Your task to perform on an android device: turn off javascript in the chrome app Image 0: 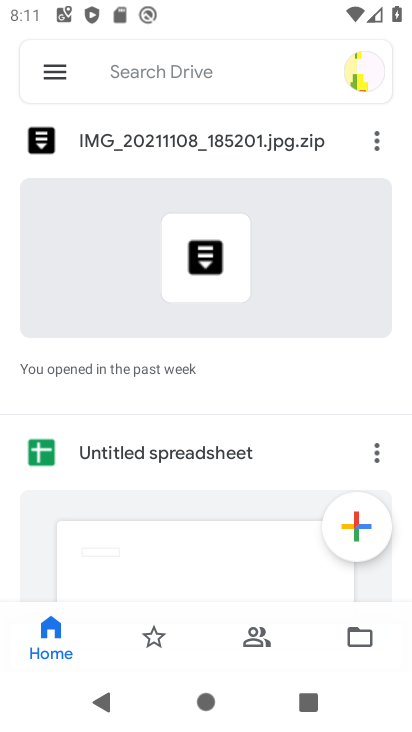
Step 0: press home button
Your task to perform on an android device: turn off javascript in the chrome app Image 1: 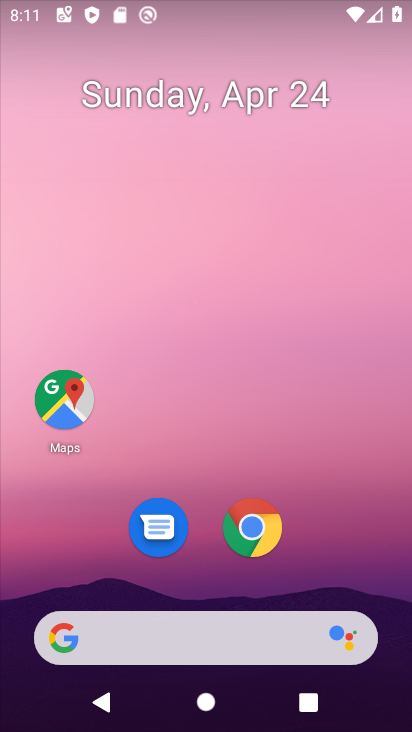
Step 1: drag from (373, 603) to (258, 42)
Your task to perform on an android device: turn off javascript in the chrome app Image 2: 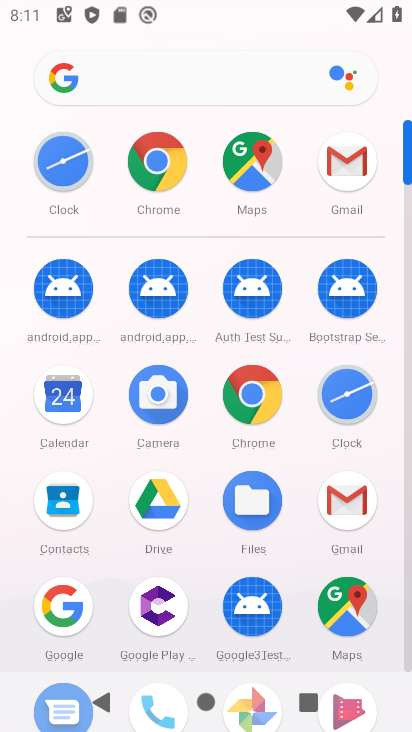
Step 2: click (165, 175)
Your task to perform on an android device: turn off javascript in the chrome app Image 3: 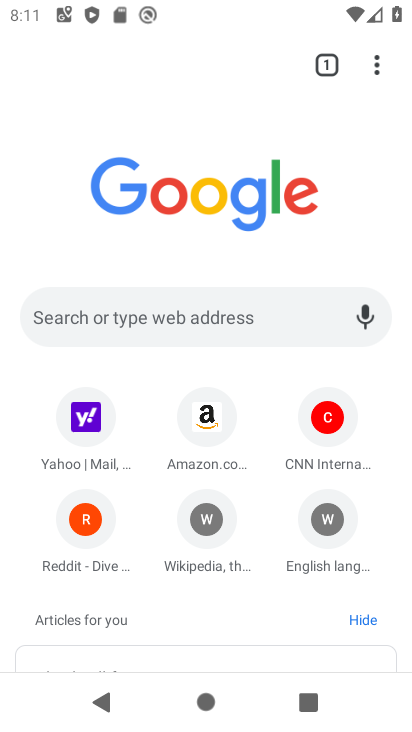
Step 3: click (376, 61)
Your task to perform on an android device: turn off javascript in the chrome app Image 4: 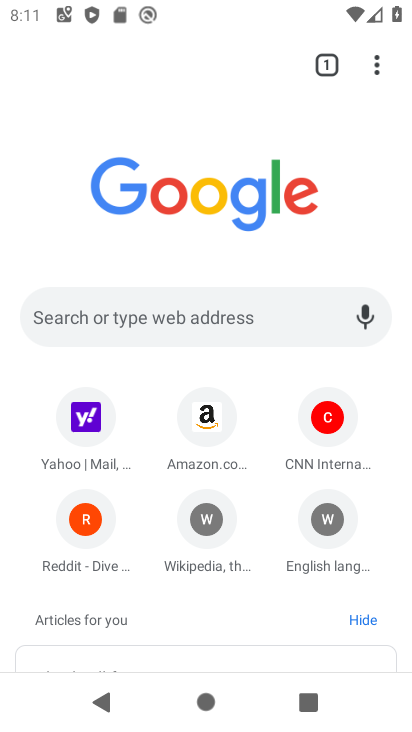
Step 4: click (376, 61)
Your task to perform on an android device: turn off javascript in the chrome app Image 5: 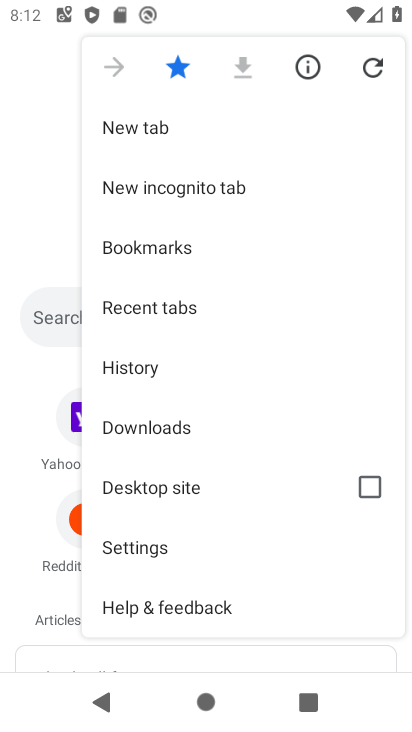
Step 5: click (148, 539)
Your task to perform on an android device: turn off javascript in the chrome app Image 6: 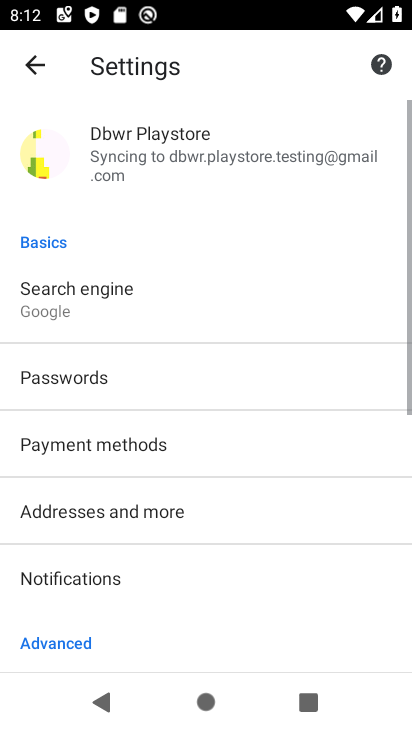
Step 6: drag from (143, 570) to (200, 197)
Your task to perform on an android device: turn off javascript in the chrome app Image 7: 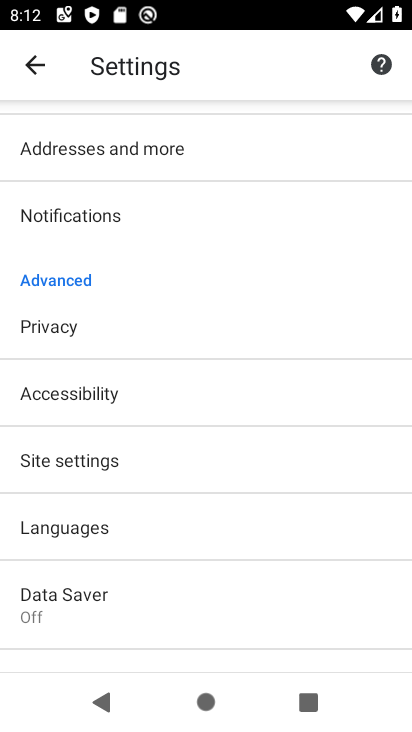
Step 7: click (88, 457)
Your task to perform on an android device: turn off javascript in the chrome app Image 8: 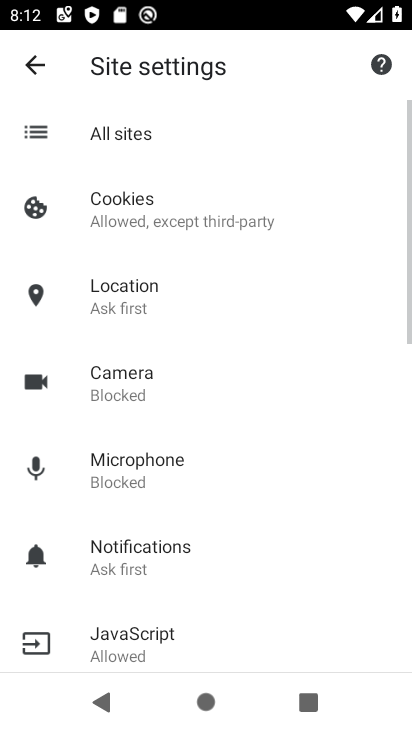
Step 8: click (148, 625)
Your task to perform on an android device: turn off javascript in the chrome app Image 9: 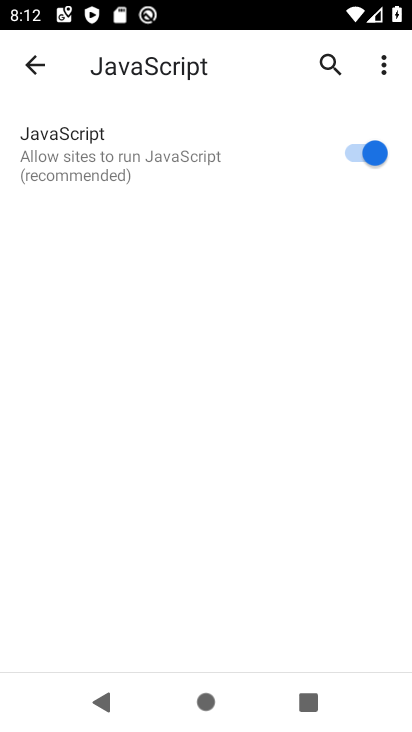
Step 9: click (308, 159)
Your task to perform on an android device: turn off javascript in the chrome app Image 10: 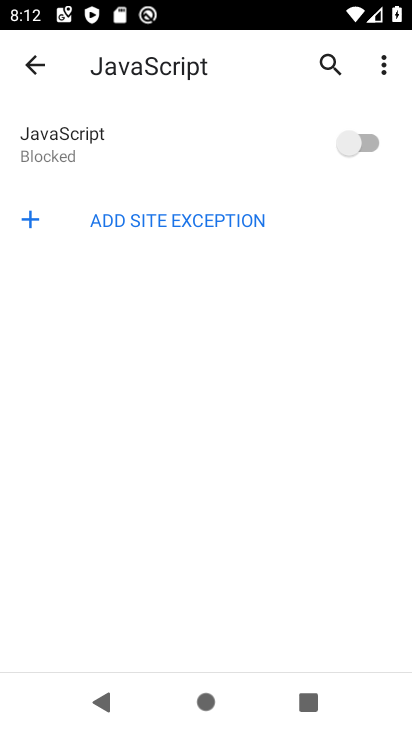
Step 10: task complete